Your task to perform on an android device: set the stopwatch Image 0: 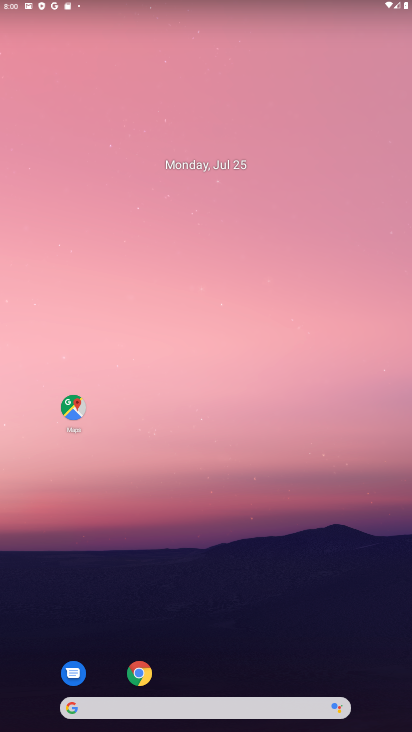
Step 0: drag from (168, 639) to (222, 164)
Your task to perform on an android device: set the stopwatch Image 1: 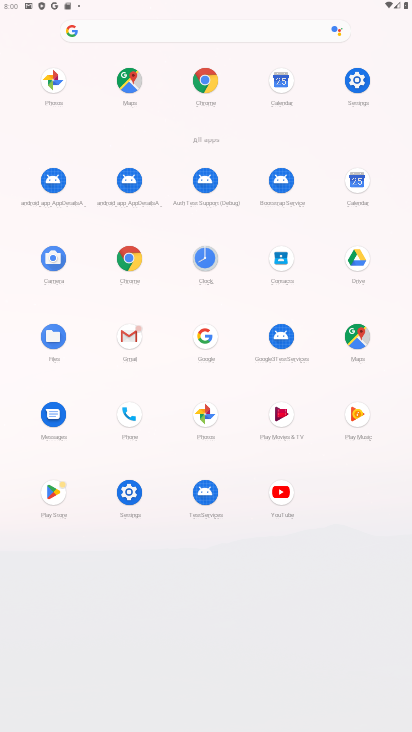
Step 1: click (203, 266)
Your task to perform on an android device: set the stopwatch Image 2: 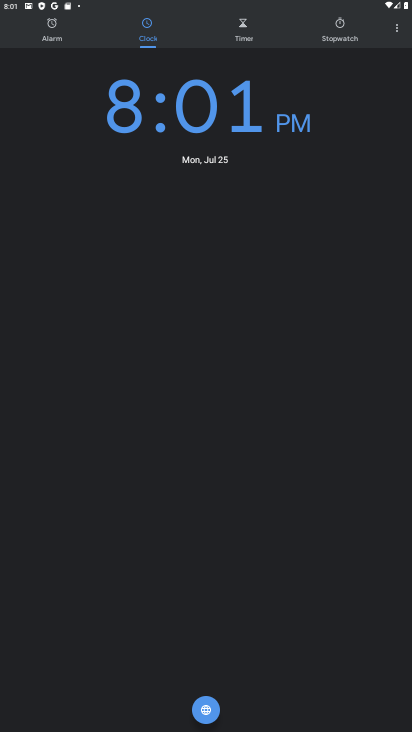
Step 2: click (343, 36)
Your task to perform on an android device: set the stopwatch Image 3: 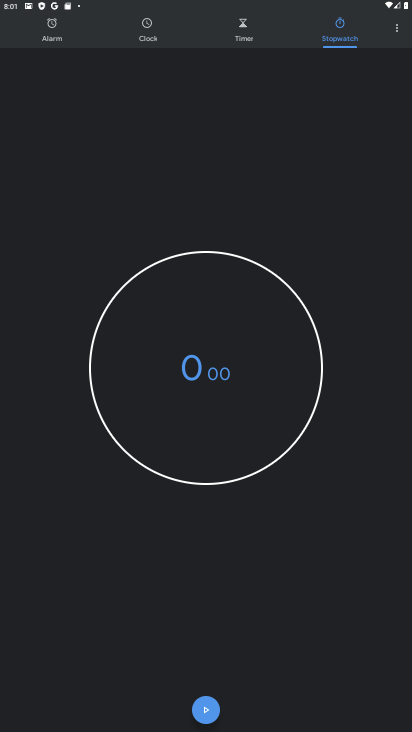
Step 3: drag from (282, 525) to (313, 296)
Your task to perform on an android device: set the stopwatch Image 4: 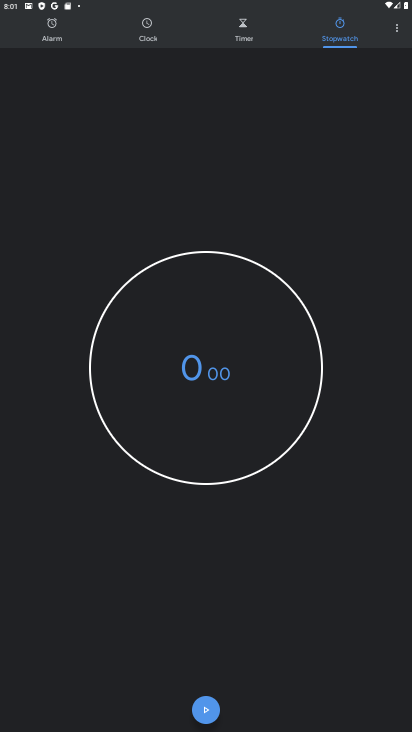
Step 4: click (207, 721)
Your task to perform on an android device: set the stopwatch Image 5: 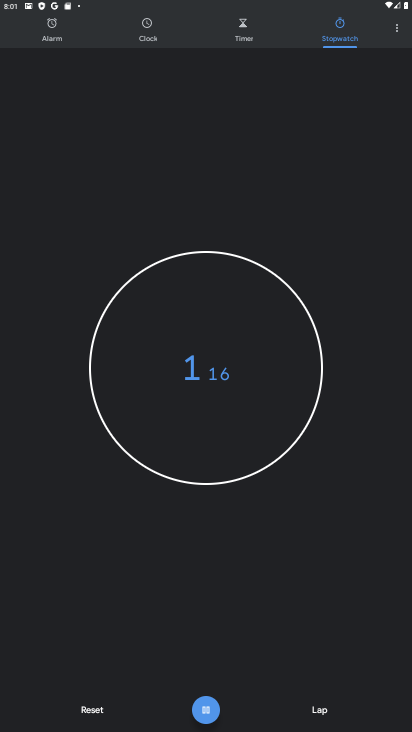
Step 5: task complete